Your task to perform on an android device: View the shopping cart on costco.com. Search for "usb-a" on costco.com, select the first entry, add it to the cart, then select checkout. Image 0: 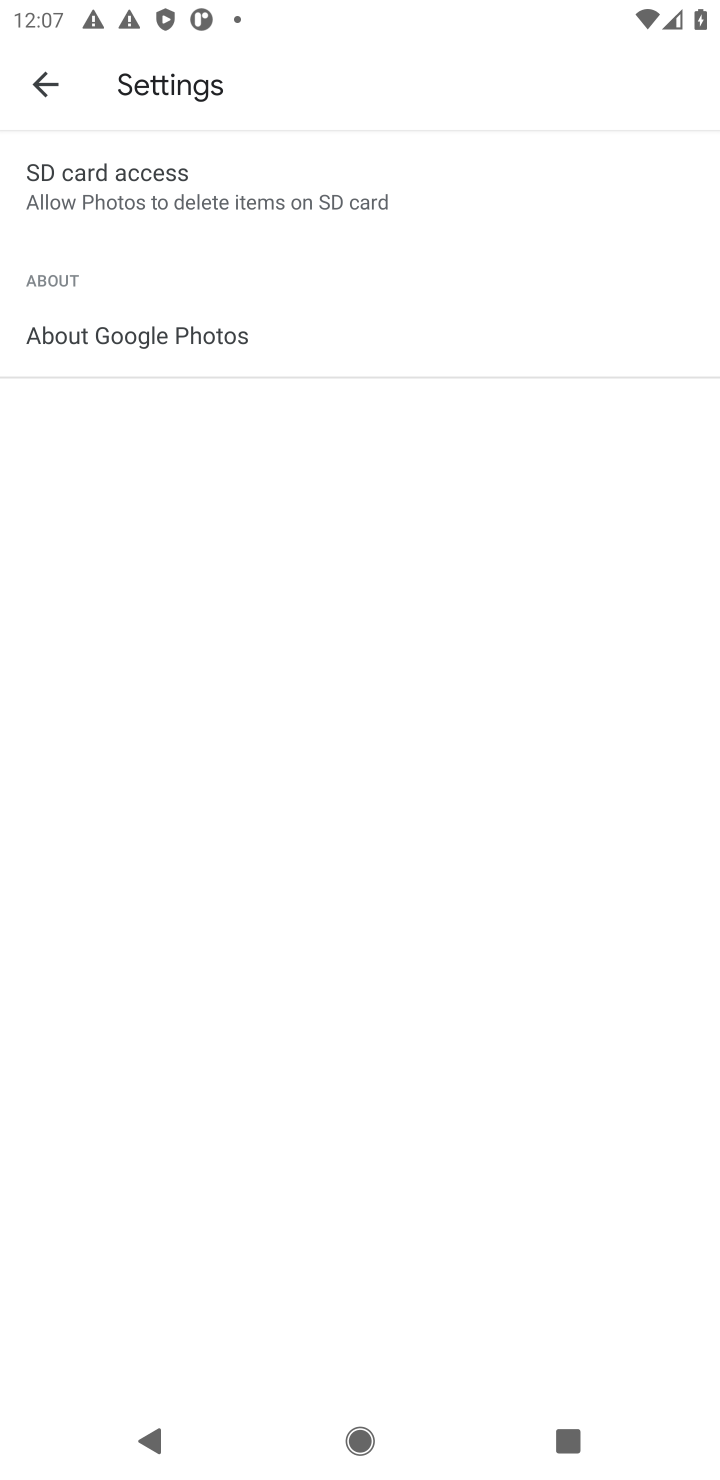
Step 0: press home button
Your task to perform on an android device: View the shopping cart on costco.com. Search for "usb-a" on costco.com, select the first entry, add it to the cart, then select checkout. Image 1: 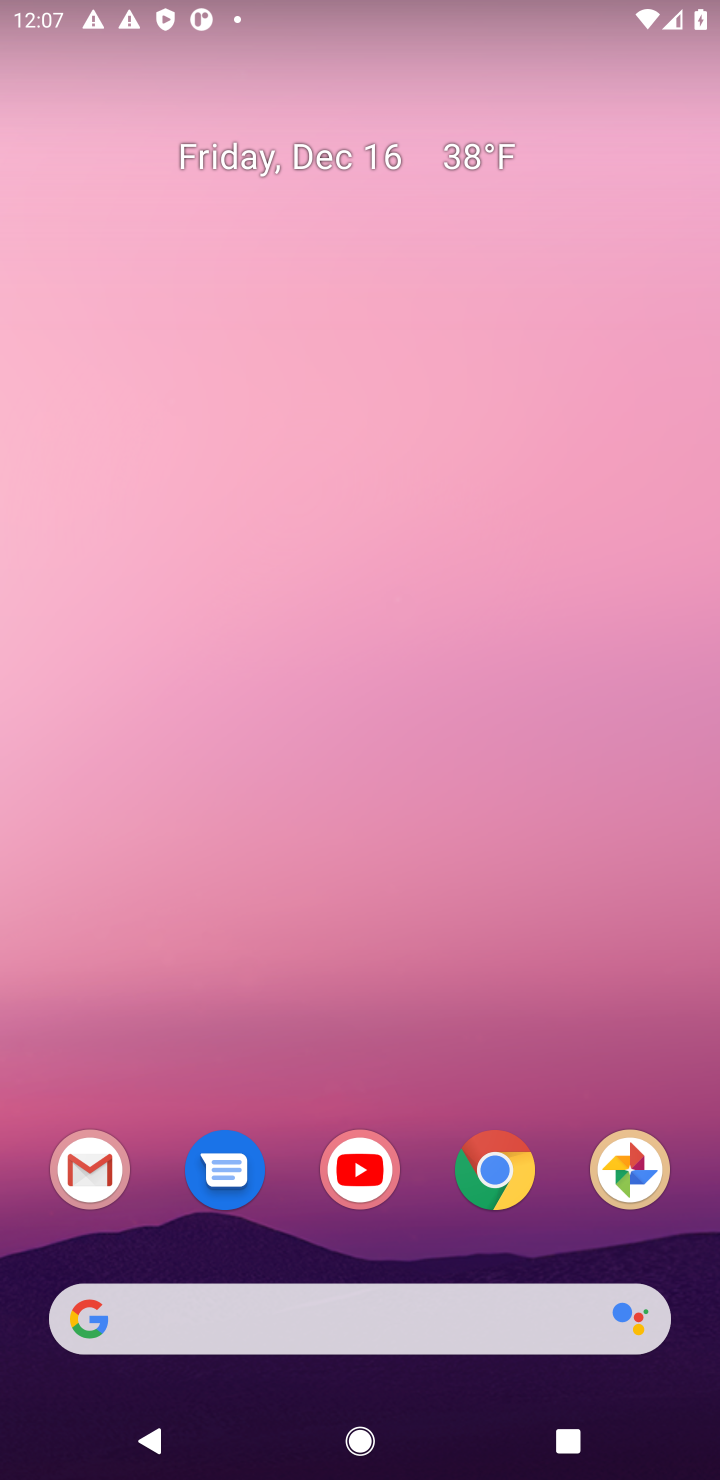
Step 1: click (489, 1180)
Your task to perform on an android device: View the shopping cart on costco.com. Search for "usb-a" on costco.com, select the first entry, add it to the cart, then select checkout. Image 2: 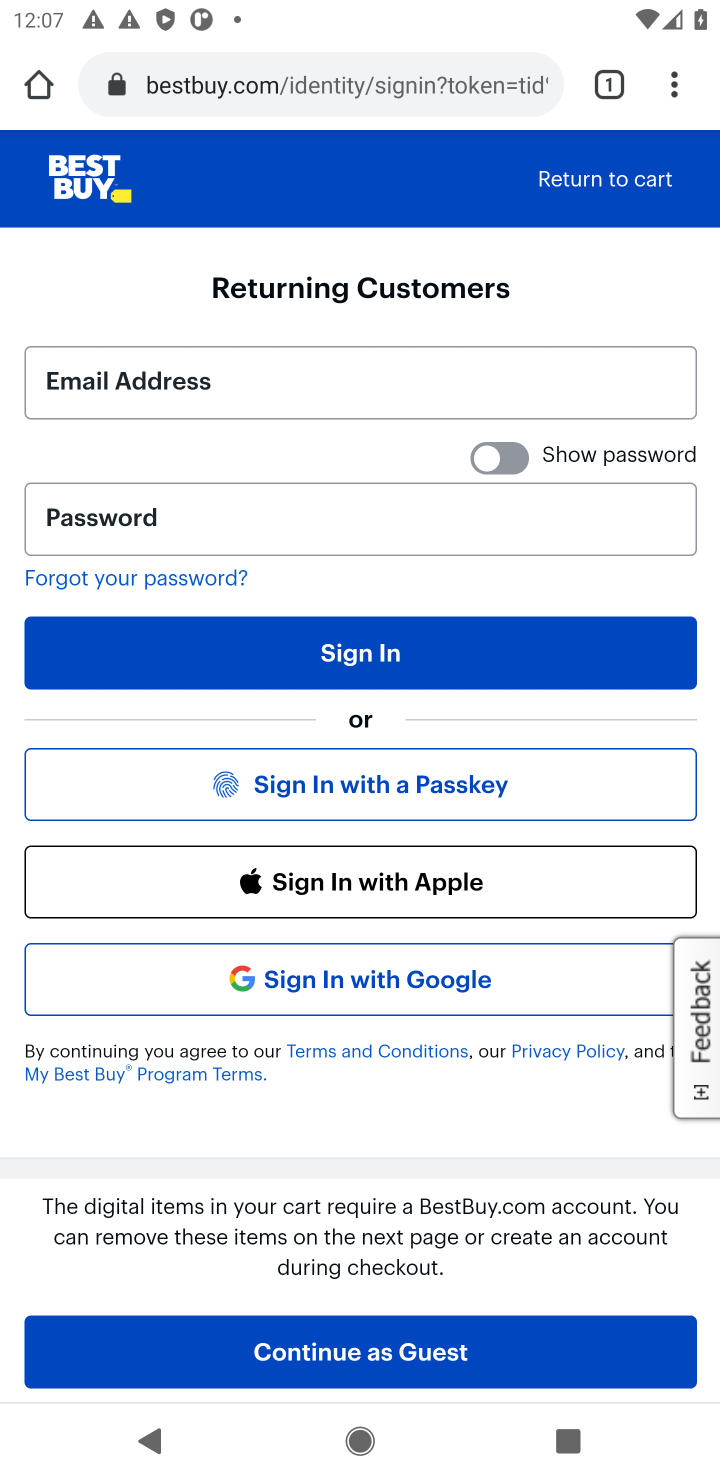
Step 2: click (304, 76)
Your task to perform on an android device: View the shopping cart on costco.com. Search for "usb-a" on costco.com, select the first entry, add it to the cart, then select checkout. Image 3: 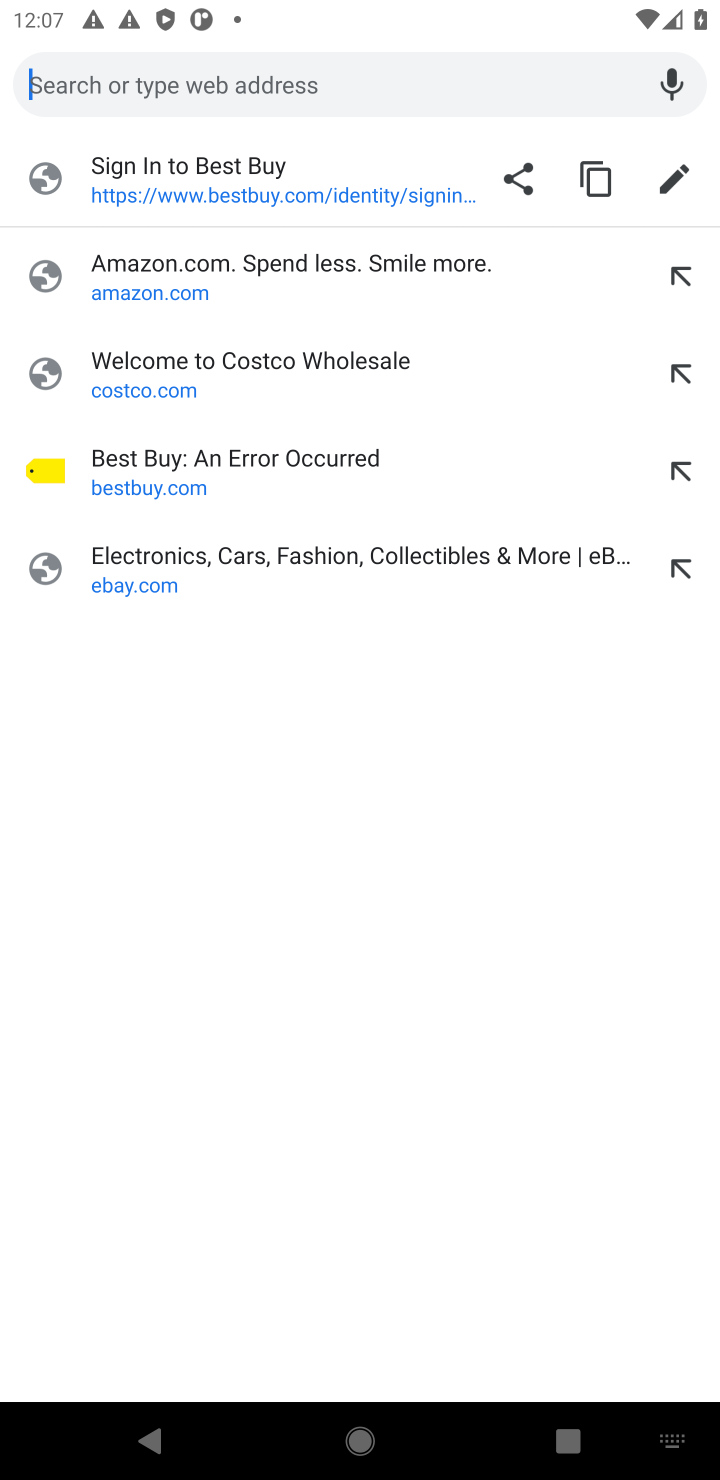
Step 3: click (126, 392)
Your task to perform on an android device: View the shopping cart on costco.com. Search for "usb-a" on costco.com, select the first entry, add it to the cart, then select checkout. Image 4: 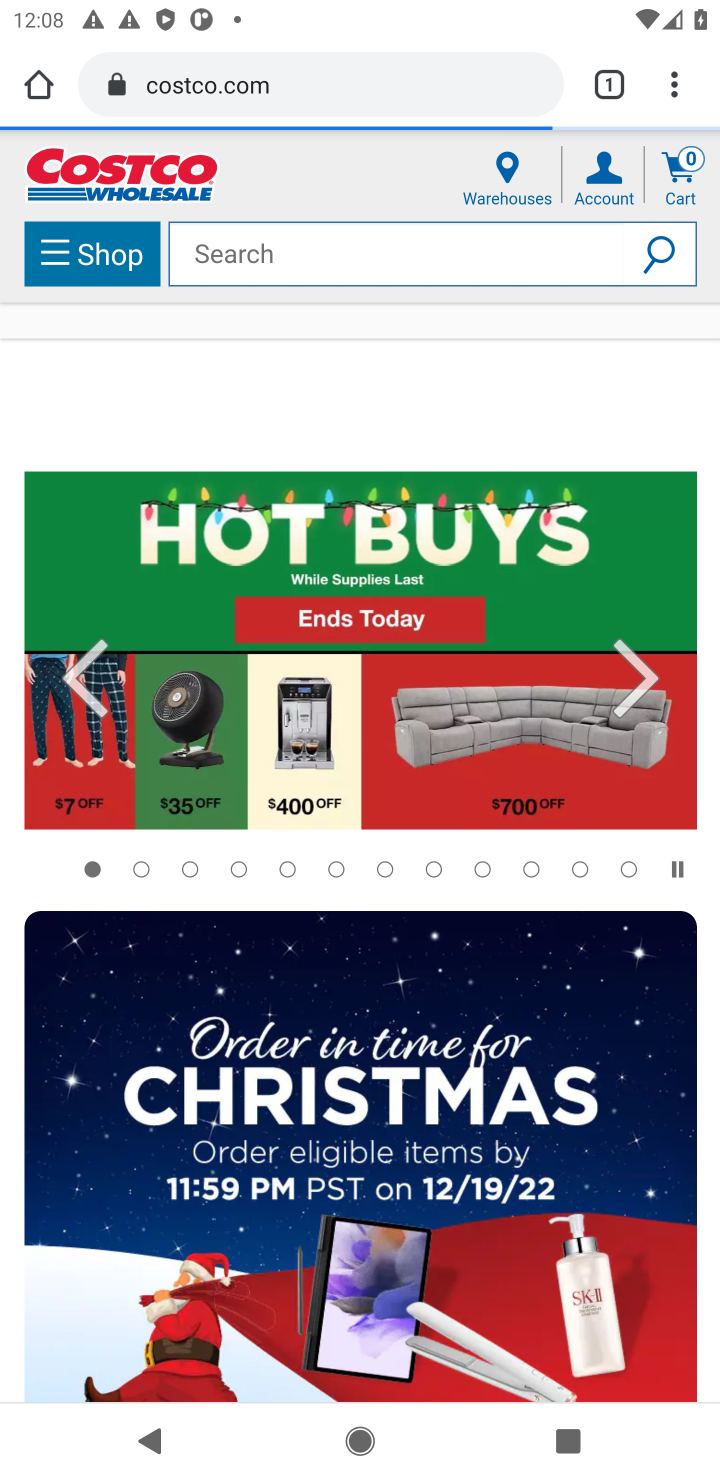
Step 4: click (677, 179)
Your task to perform on an android device: View the shopping cart on costco.com. Search for "usb-a" on costco.com, select the first entry, add it to the cart, then select checkout. Image 5: 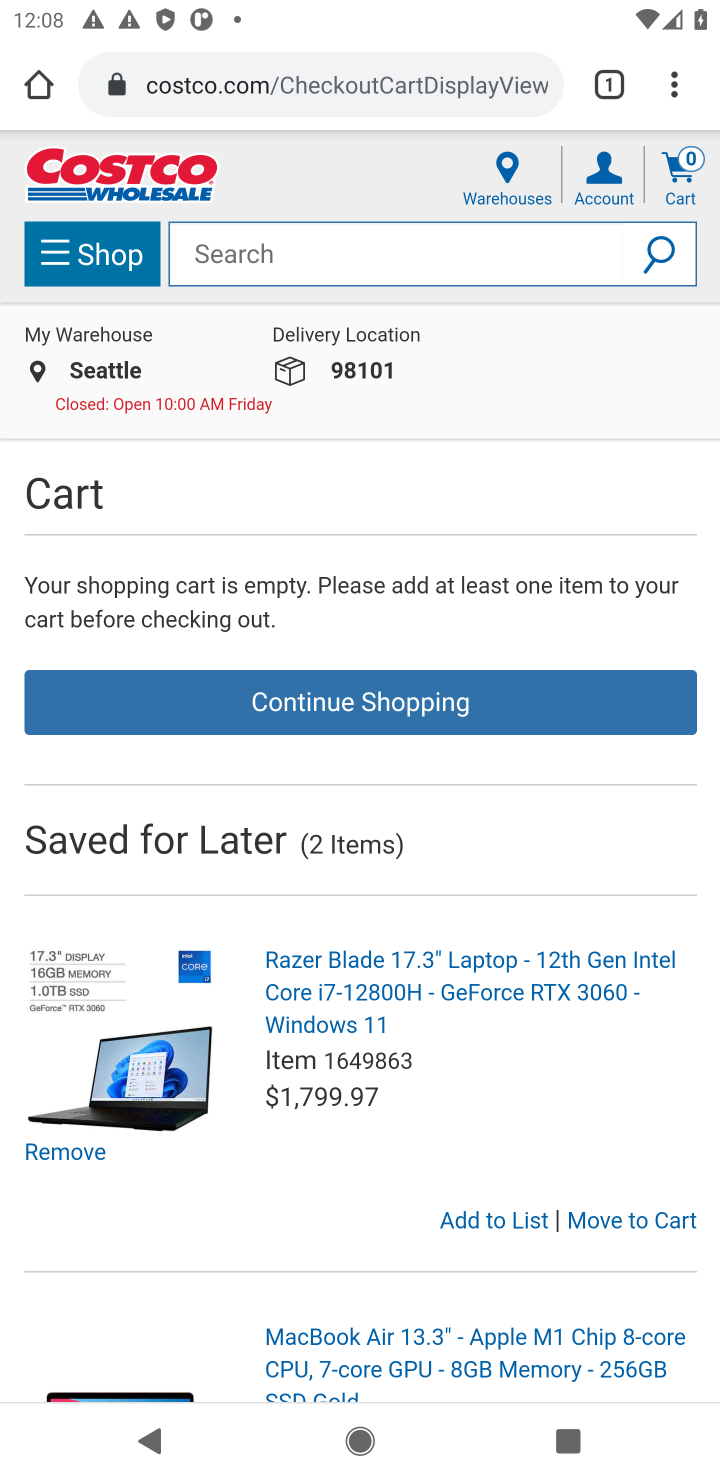
Step 5: click (235, 277)
Your task to perform on an android device: View the shopping cart on costco.com. Search for "usb-a" on costco.com, select the first entry, add it to the cart, then select checkout. Image 6: 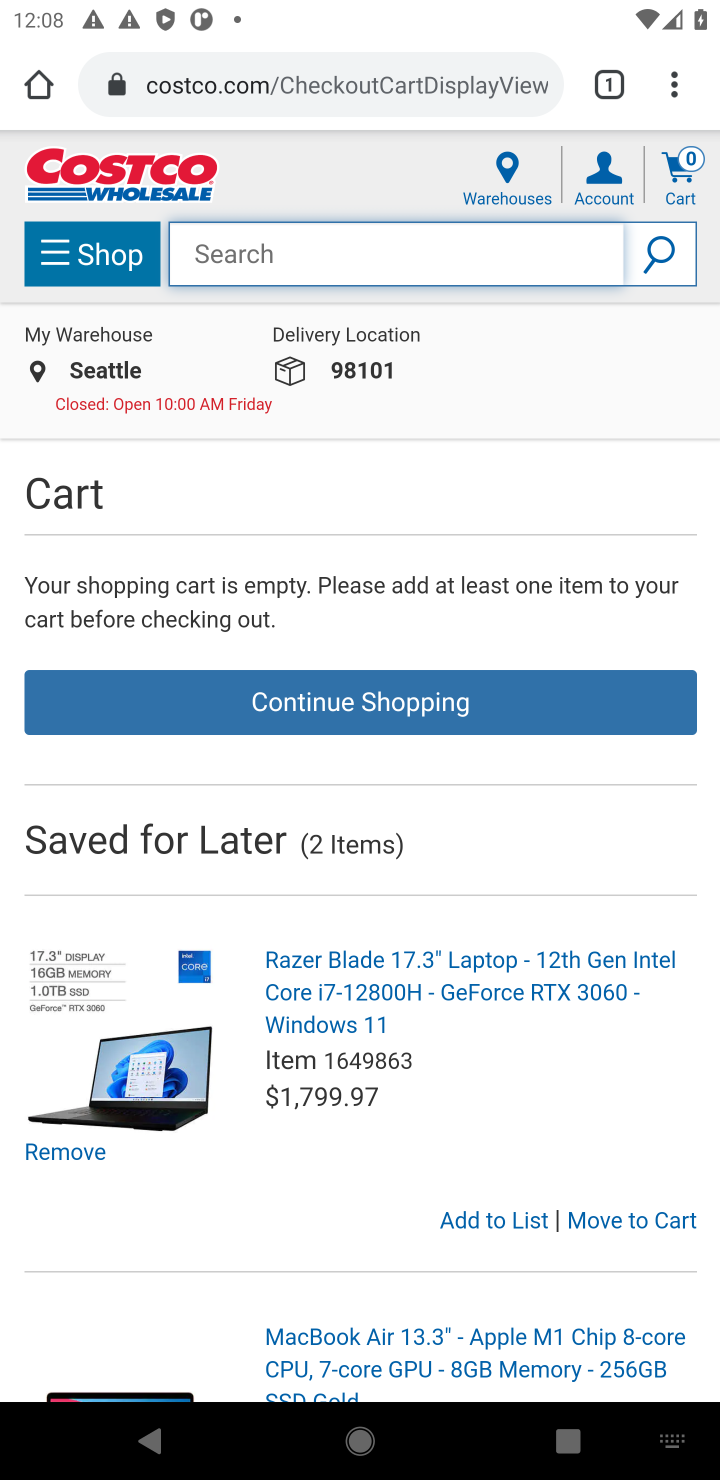
Step 6: type "usb-a"
Your task to perform on an android device: View the shopping cart on costco.com. Search for "usb-a" on costco.com, select the first entry, add it to the cart, then select checkout. Image 7: 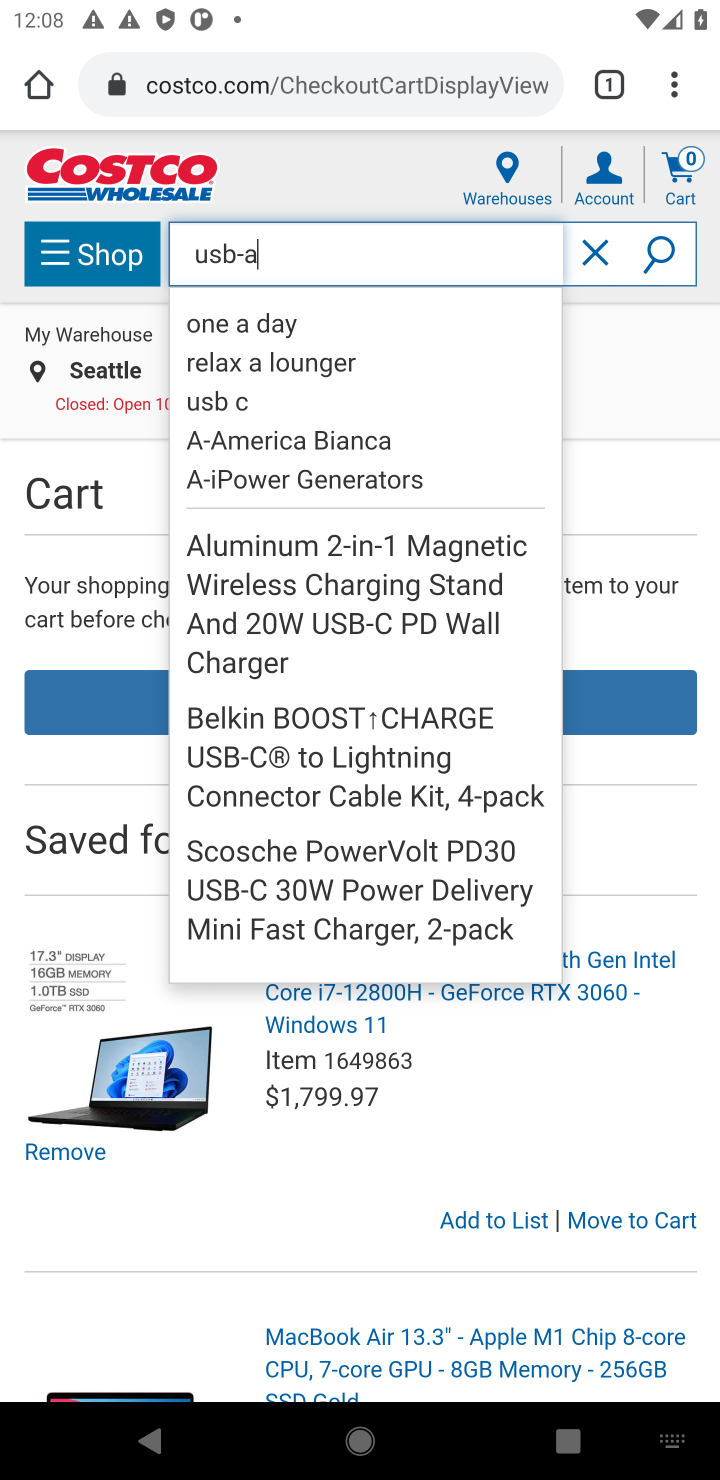
Step 7: click (659, 250)
Your task to perform on an android device: View the shopping cart on costco.com. Search for "usb-a" on costco.com, select the first entry, add it to the cart, then select checkout. Image 8: 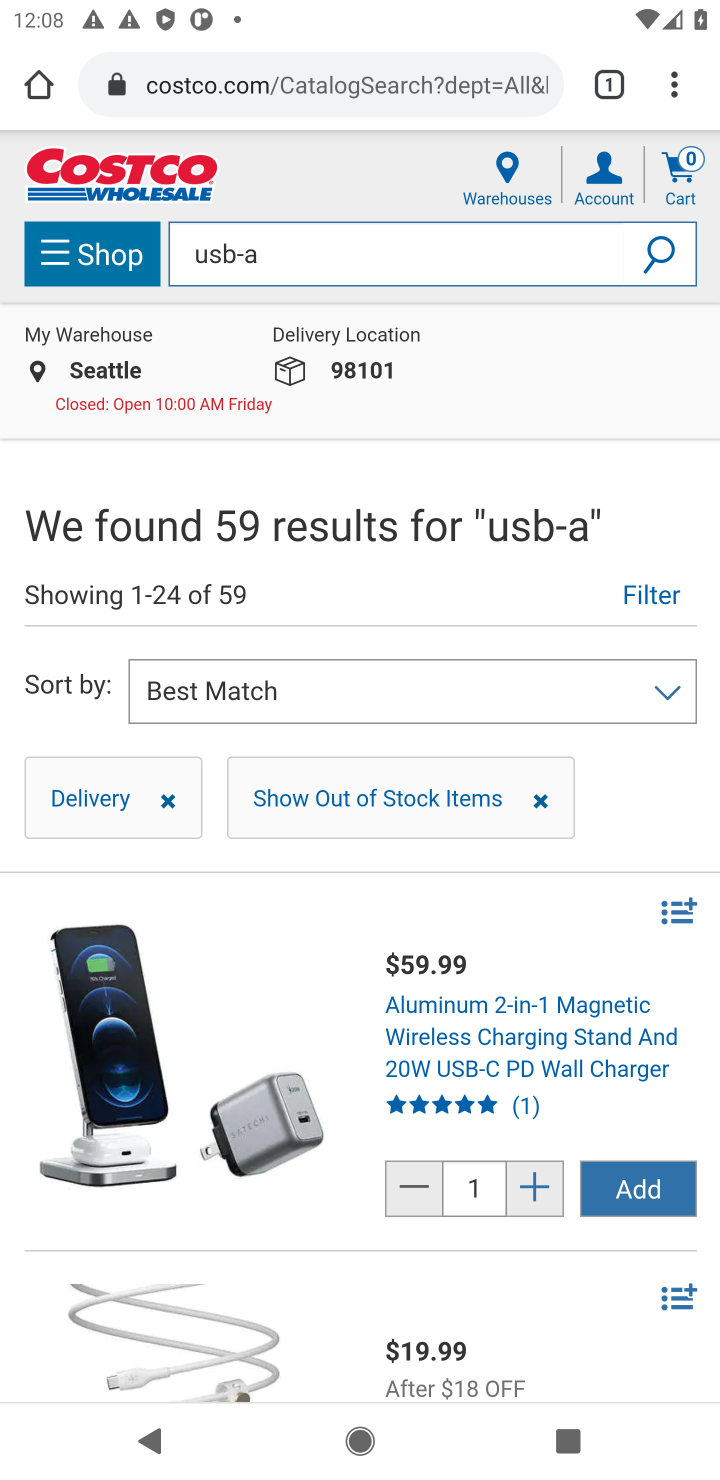
Step 8: drag from (287, 745) to (297, 365)
Your task to perform on an android device: View the shopping cart on costco.com. Search for "usb-a" on costco.com, select the first entry, add it to the cart, then select checkout. Image 9: 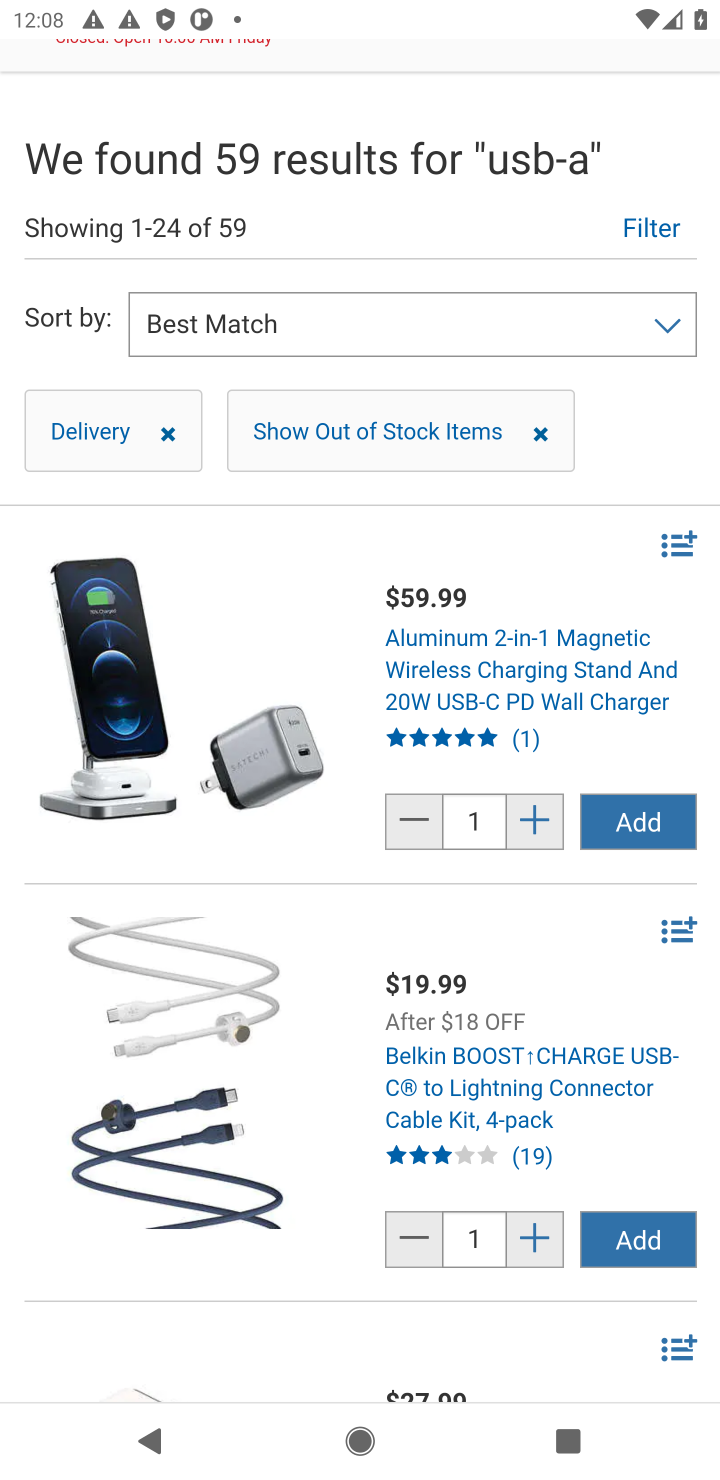
Step 9: click (605, 692)
Your task to perform on an android device: View the shopping cart on costco.com. Search for "usb-a" on costco.com, select the first entry, add it to the cart, then select checkout. Image 10: 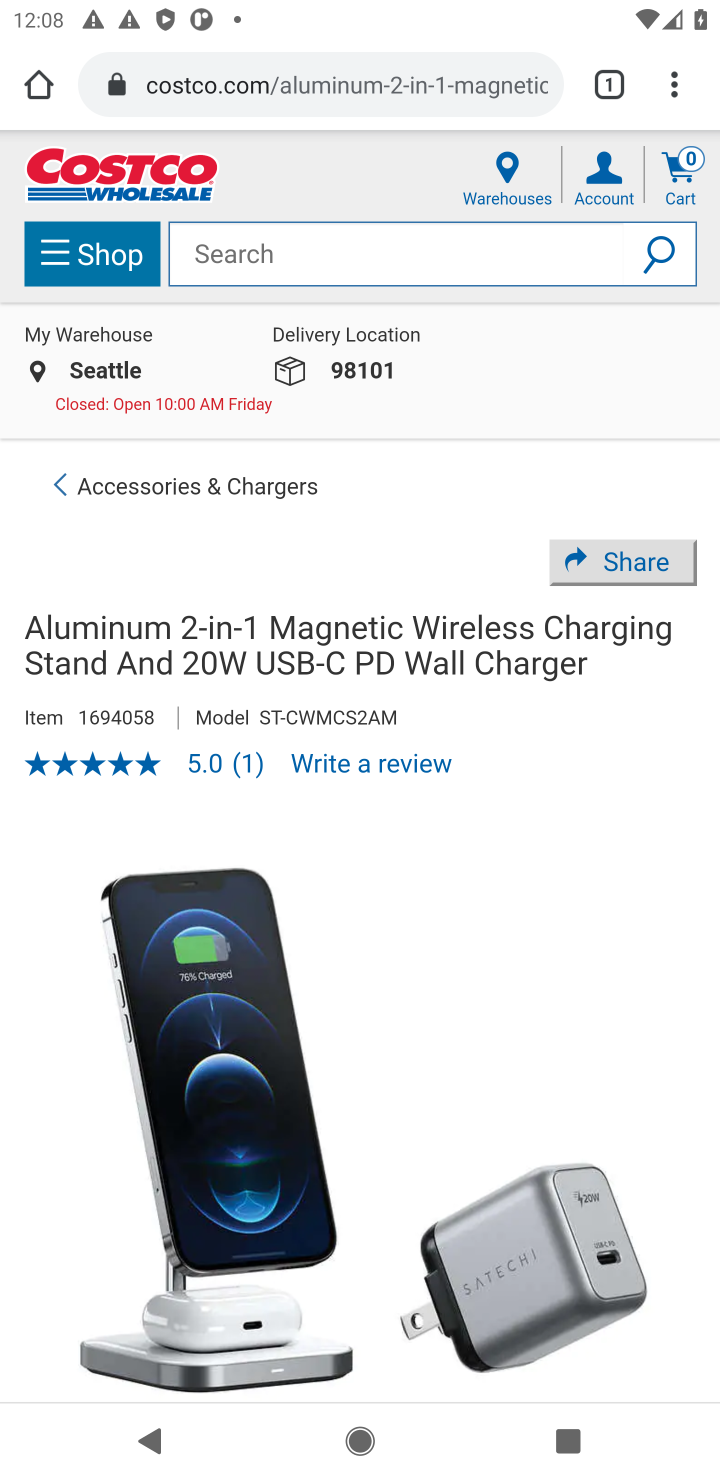
Step 10: task complete